Your task to perform on an android device: change notifications settings Image 0: 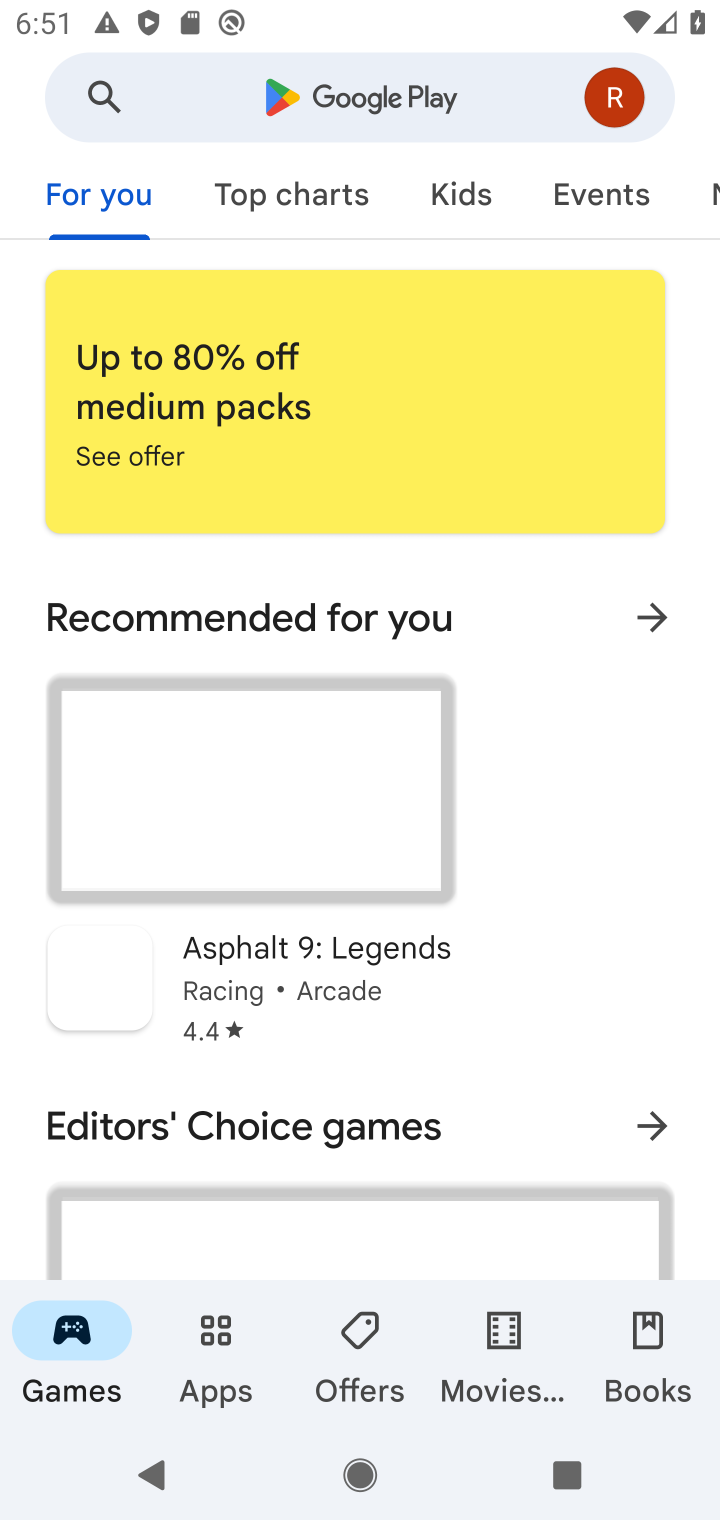
Step 0: press home button
Your task to perform on an android device: change notifications settings Image 1: 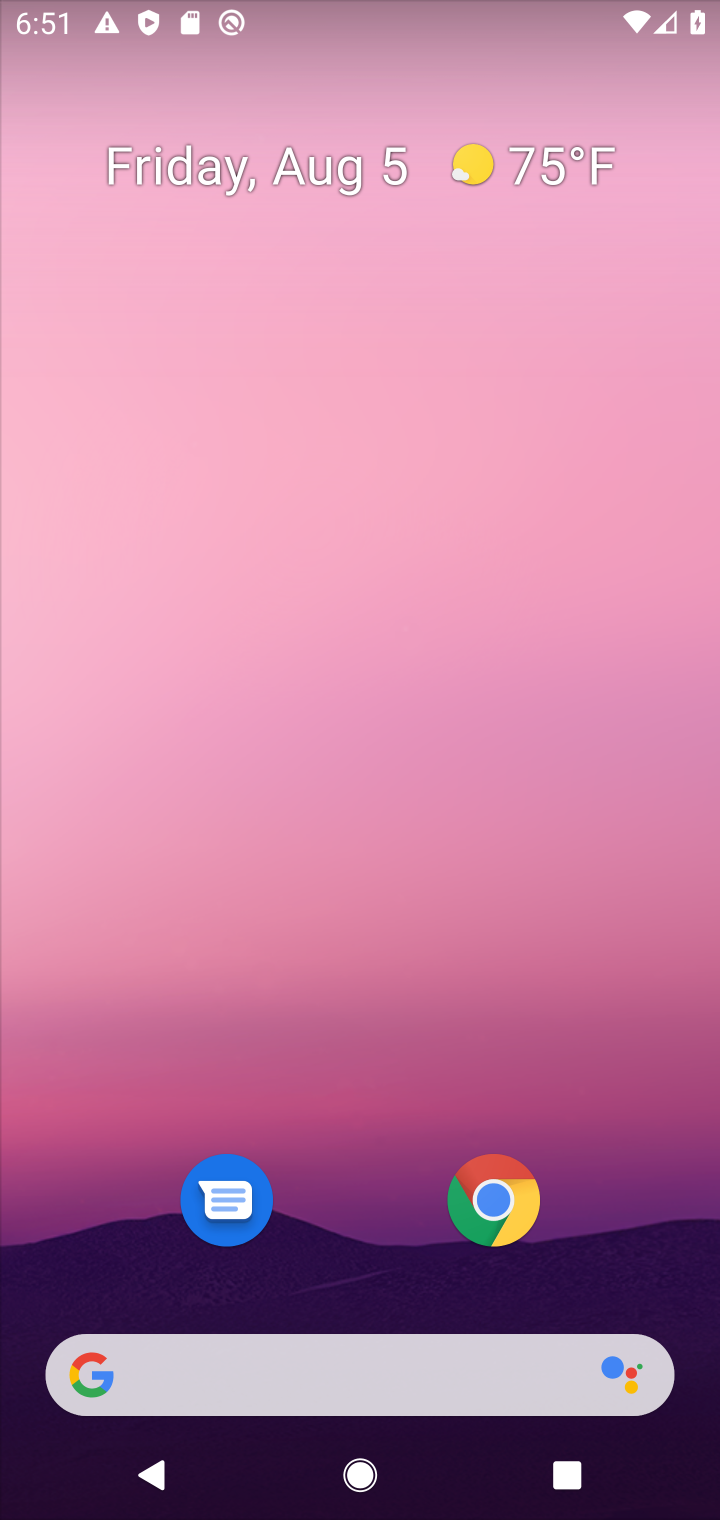
Step 1: drag from (569, 806) to (479, 39)
Your task to perform on an android device: change notifications settings Image 2: 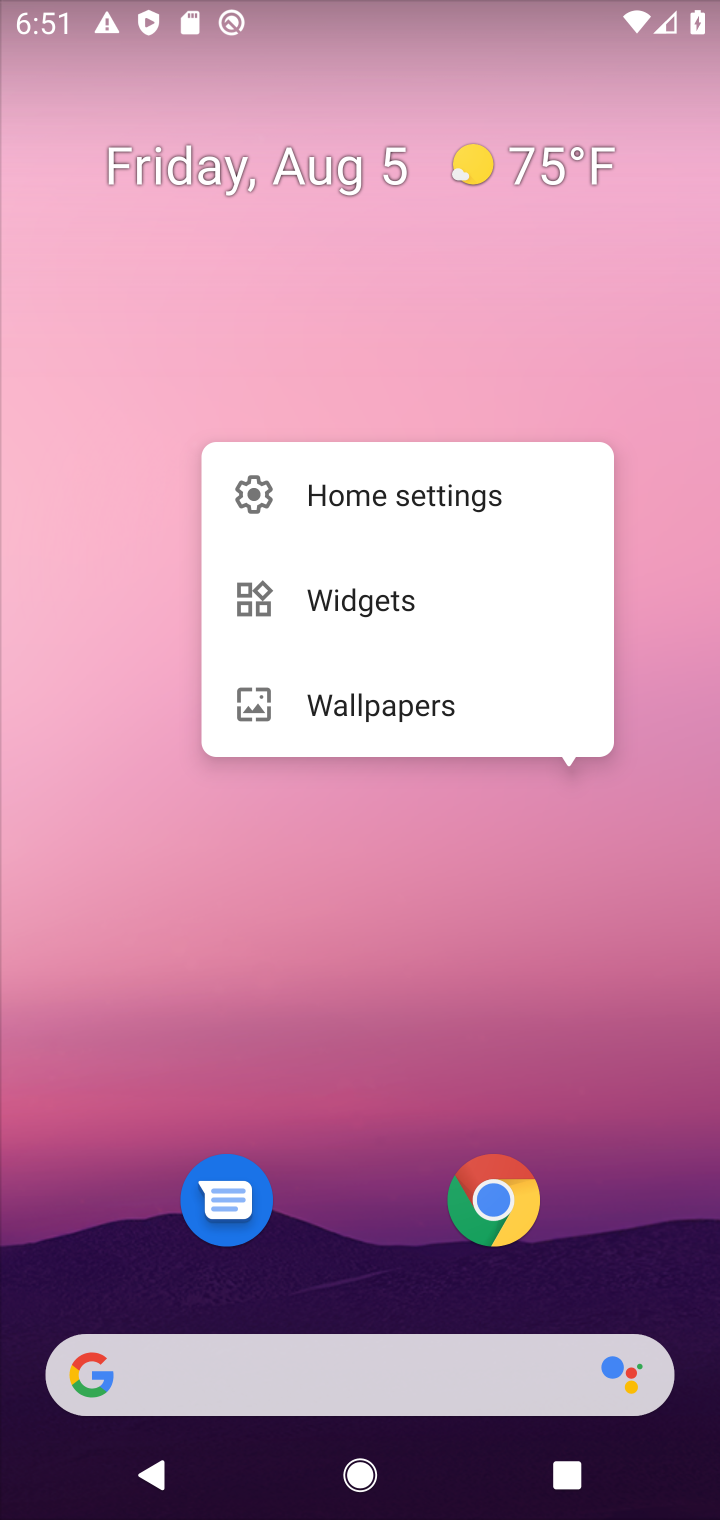
Step 2: click (596, 885)
Your task to perform on an android device: change notifications settings Image 3: 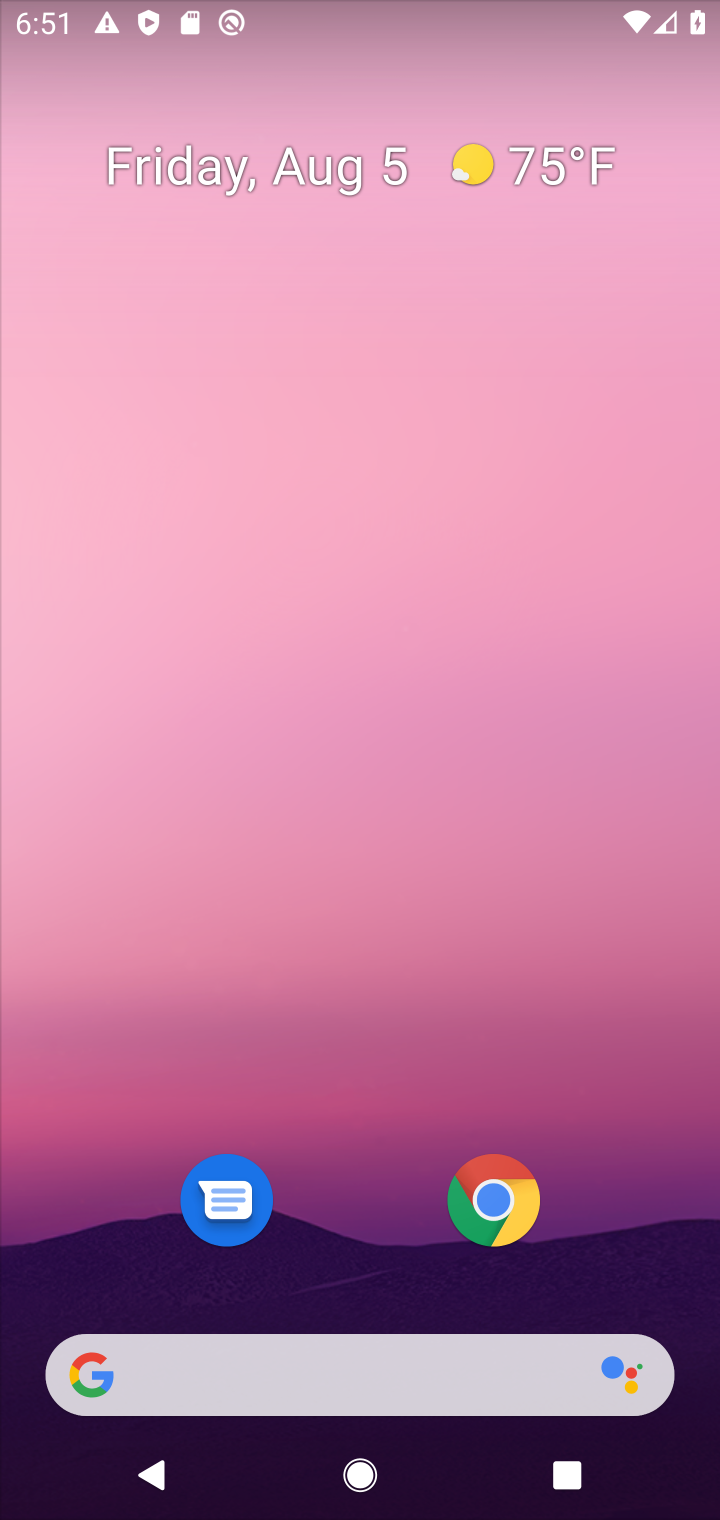
Step 3: drag from (647, 1200) to (560, 231)
Your task to perform on an android device: change notifications settings Image 4: 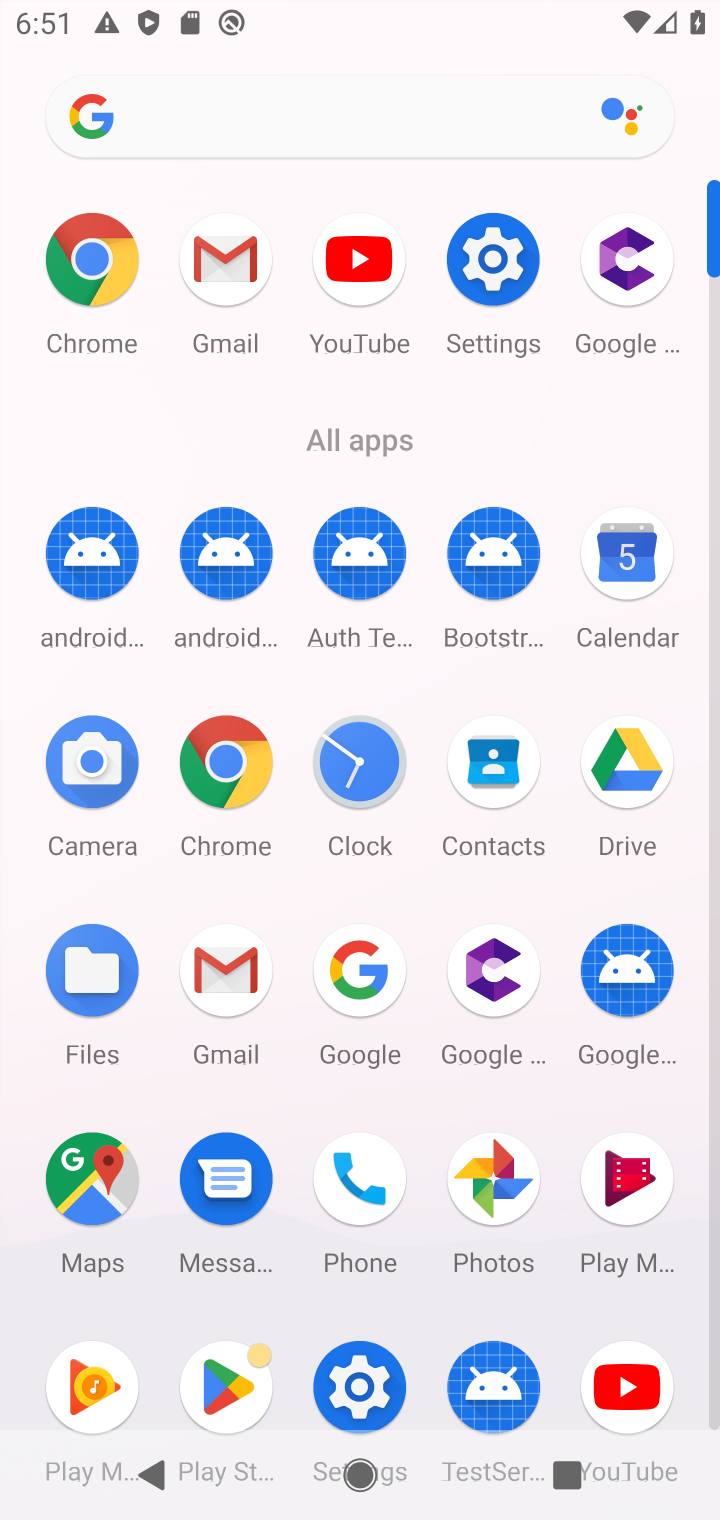
Step 4: click (362, 1377)
Your task to perform on an android device: change notifications settings Image 5: 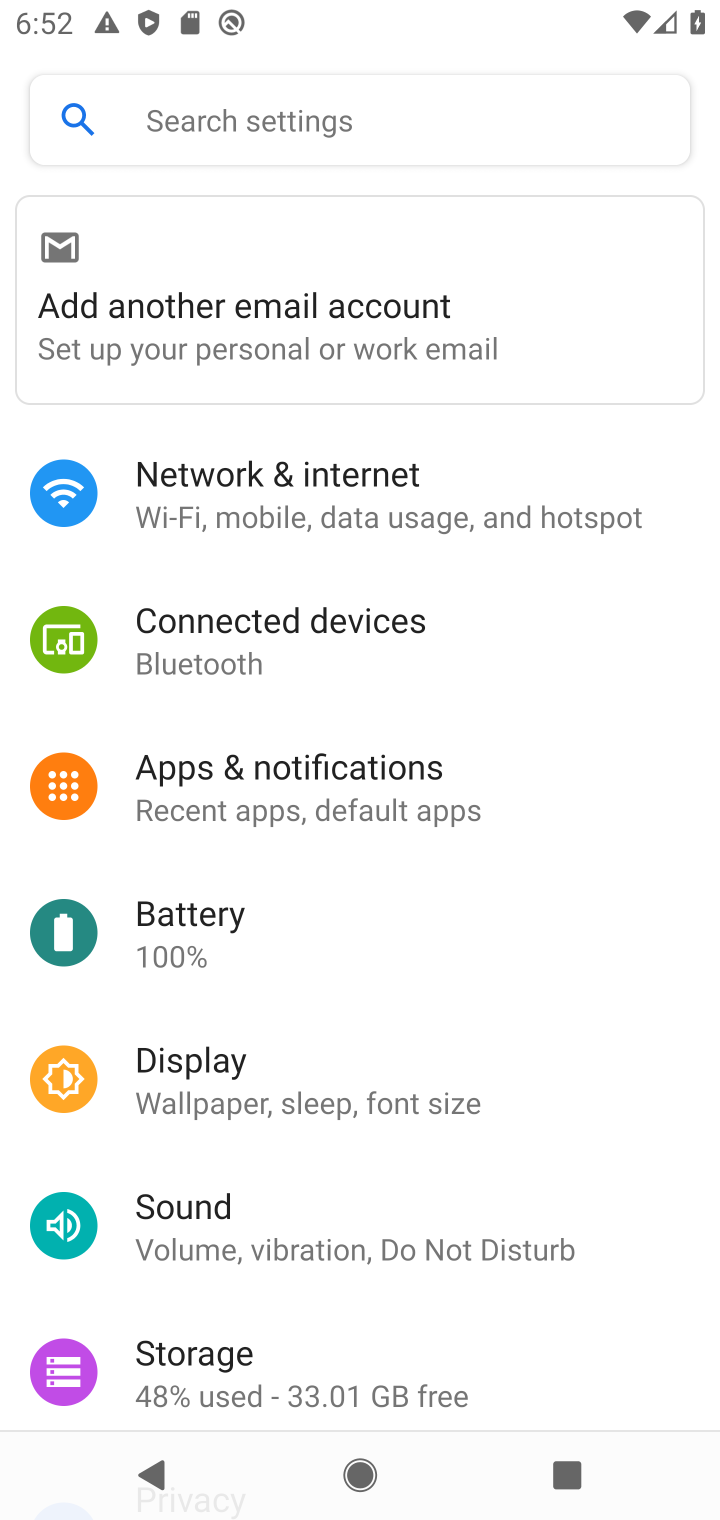
Step 5: click (333, 792)
Your task to perform on an android device: change notifications settings Image 6: 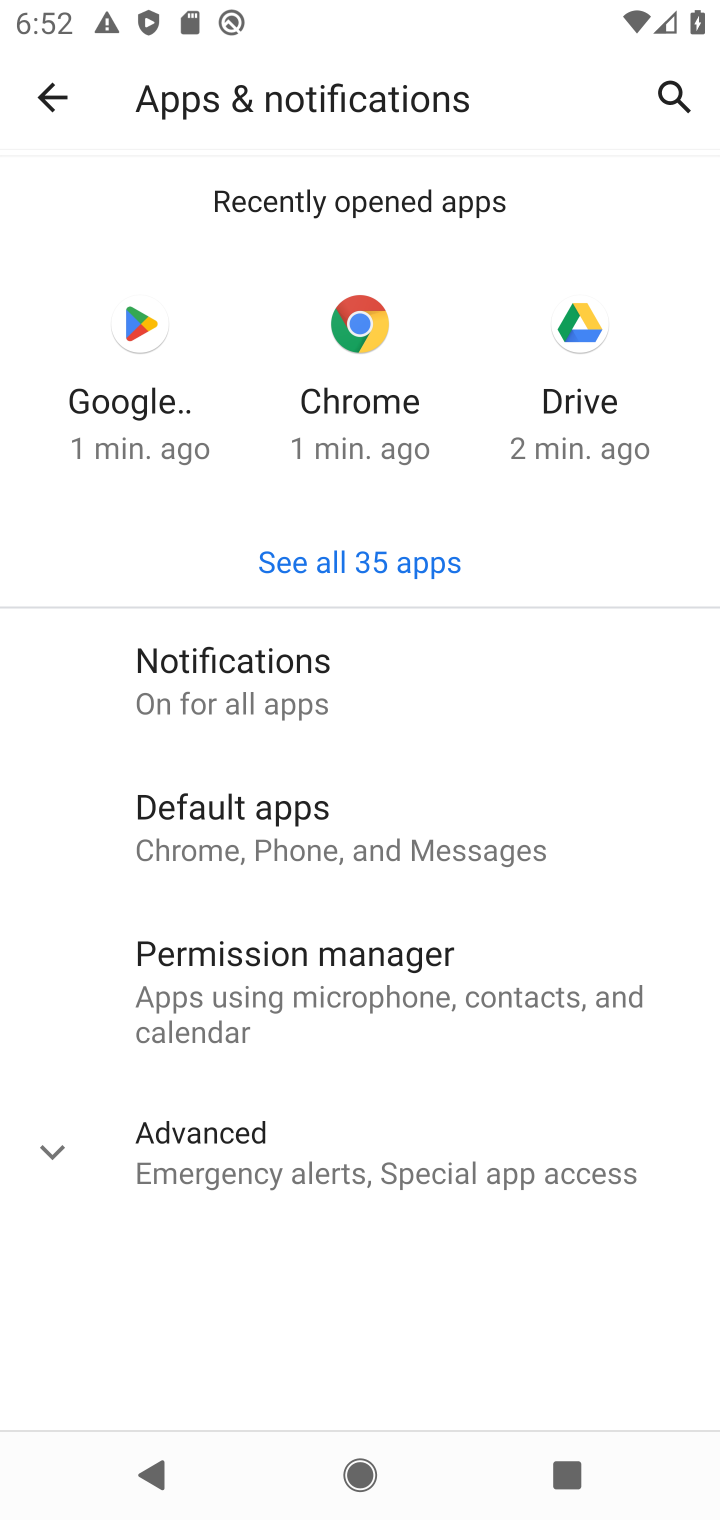
Step 6: click (376, 698)
Your task to perform on an android device: change notifications settings Image 7: 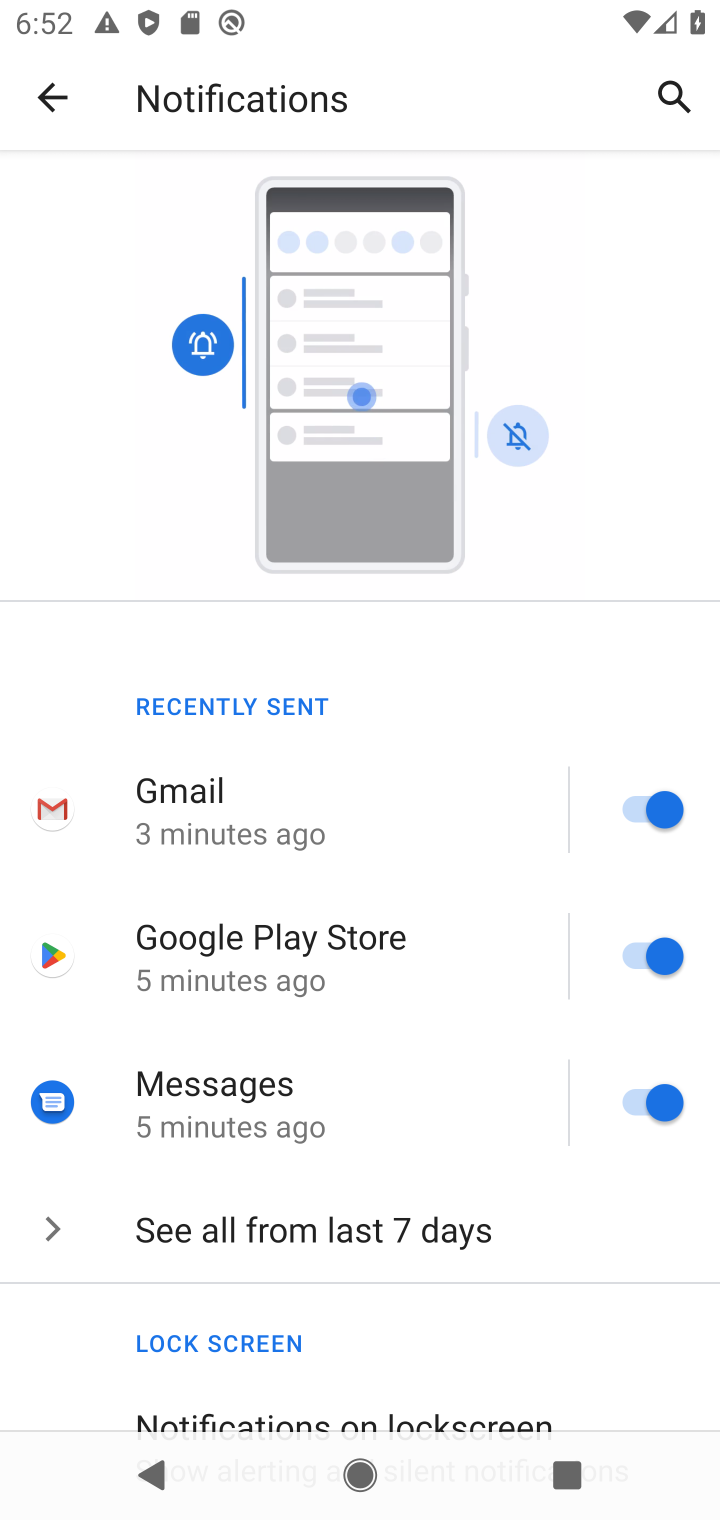
Step 7: drag from (411, 1133) to (405, 530)
Your task to perform on an android device: change notifications settings Image 8: 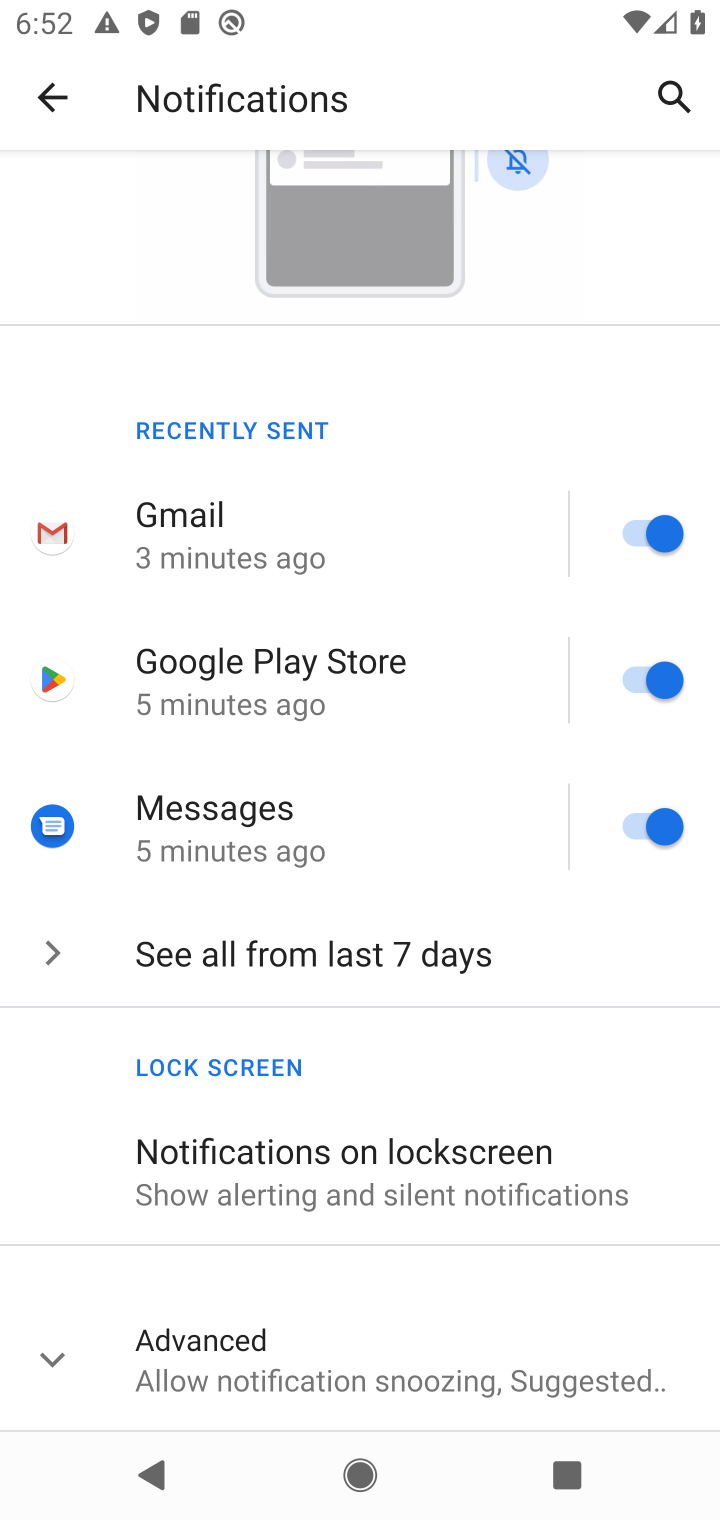
Step 8: click (448, 1354)
Your task to perform on an android device: change notifications settings Image 9: 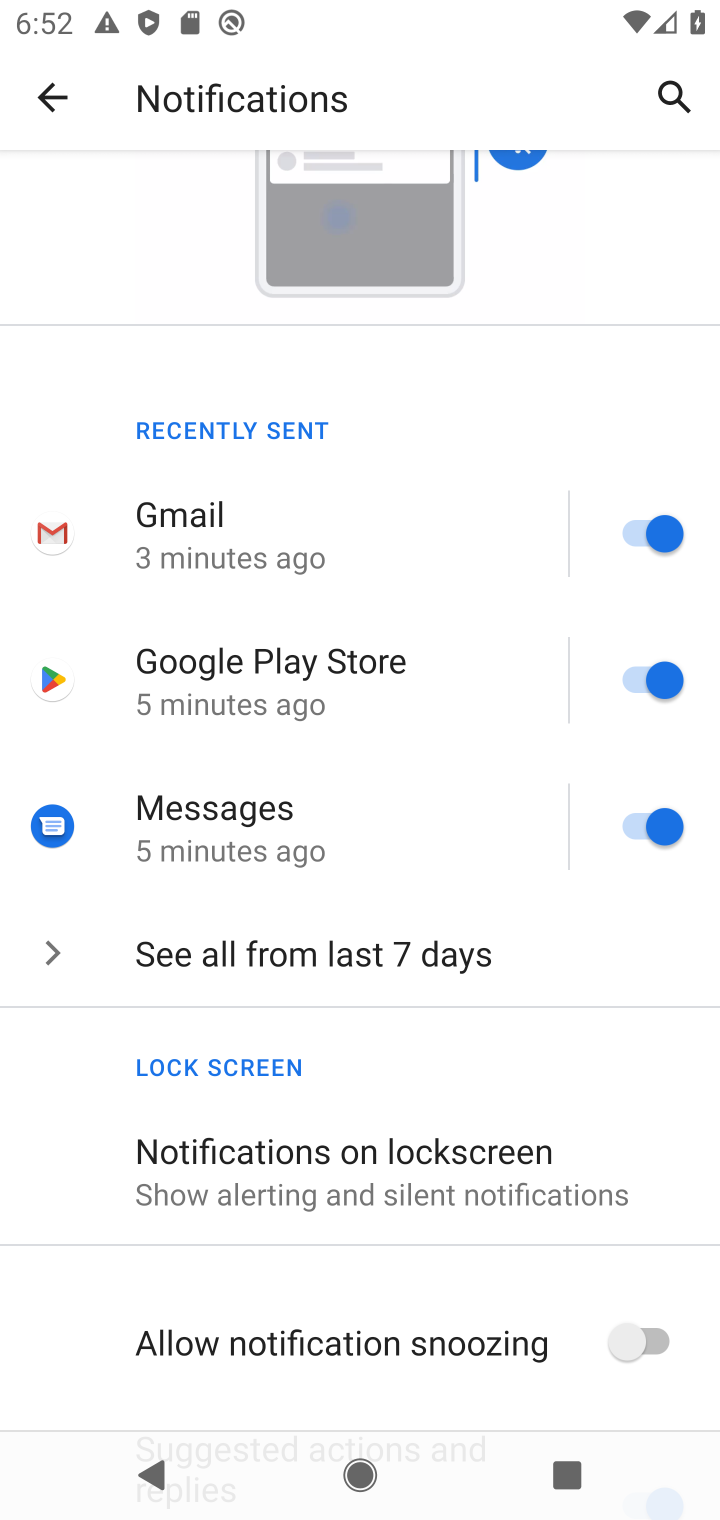
Step 9: drag from (336, 1339) to (293, 864)
Your task to perform on an android device: change notifications settings Image 10: 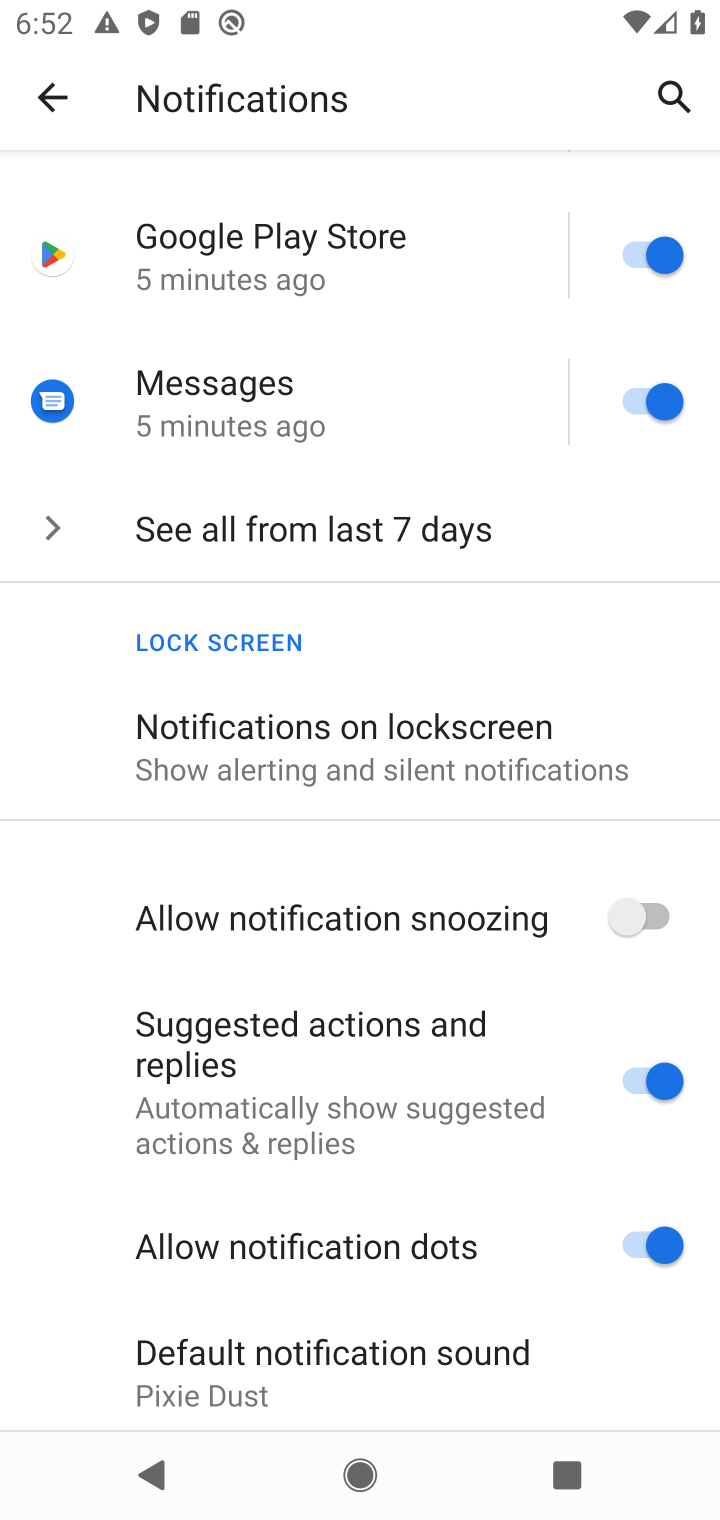
Step 10: click (654, 1245)
Your task to perform on an android device: change notifications settings Image 11: 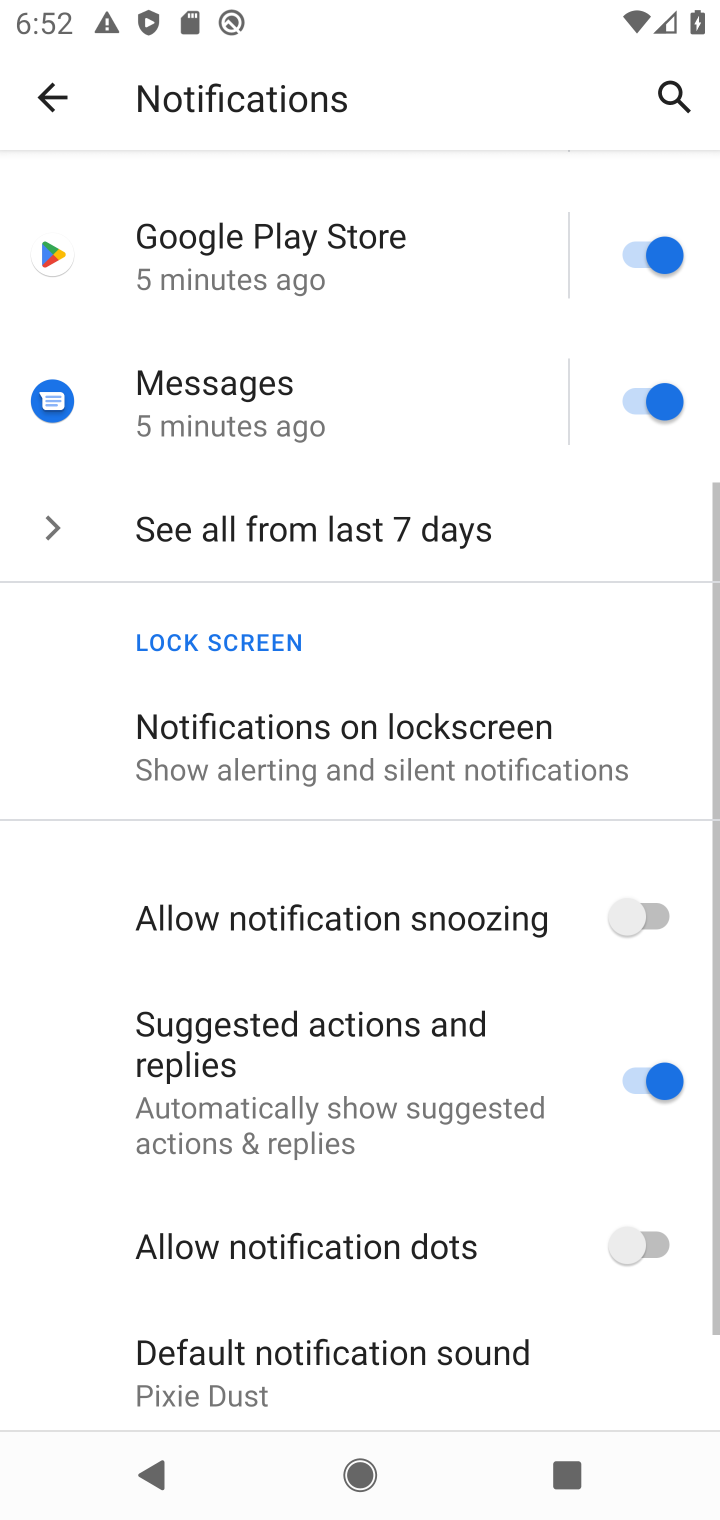
Step 11: click (649, 1076)
Your task to perform on an android device: change notifications settings Image 12: 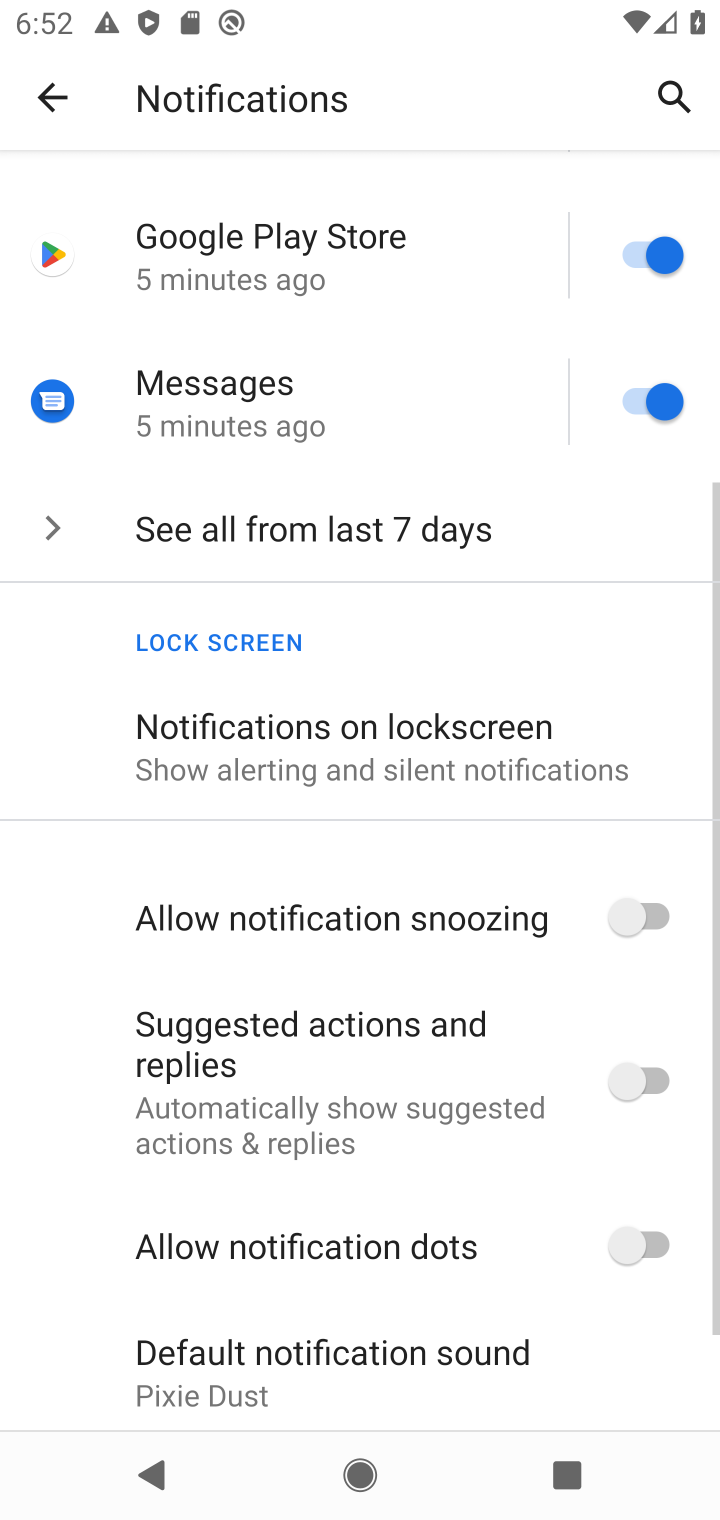
Step 12: task complete